Your task to perform on an android device: Go to Google Image 0: 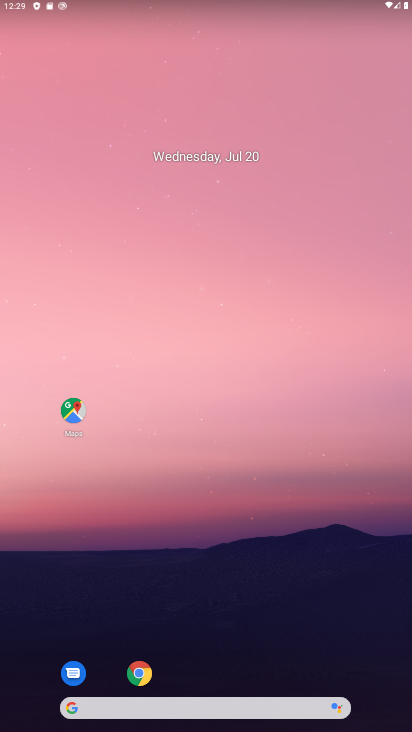
Step 0: drag from (263, 642) to (250, 36)
Your task to perform on an android device: Go to Google Image 1: 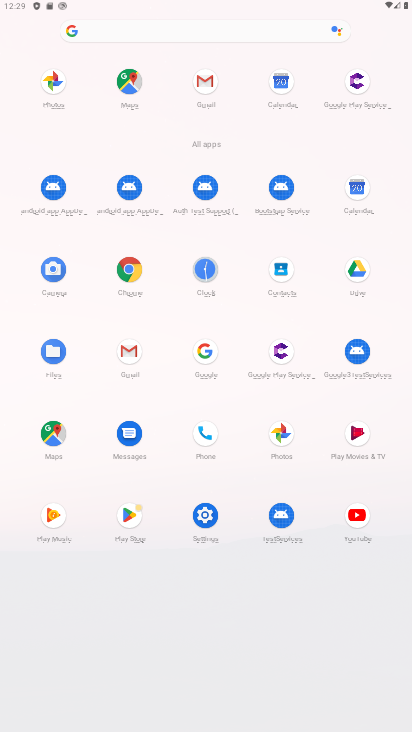
Step 1: click (200, 349)
Your task to perform on an android device: Go to Google Image 2: 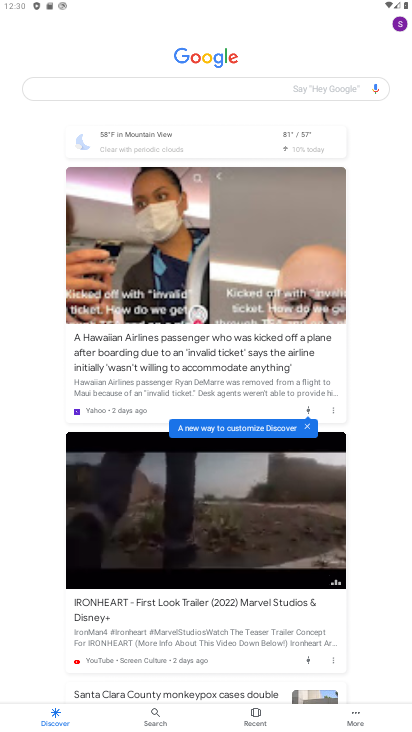
Step 2: task complete